Your task to perform on an android device: change the clock style Image 0: 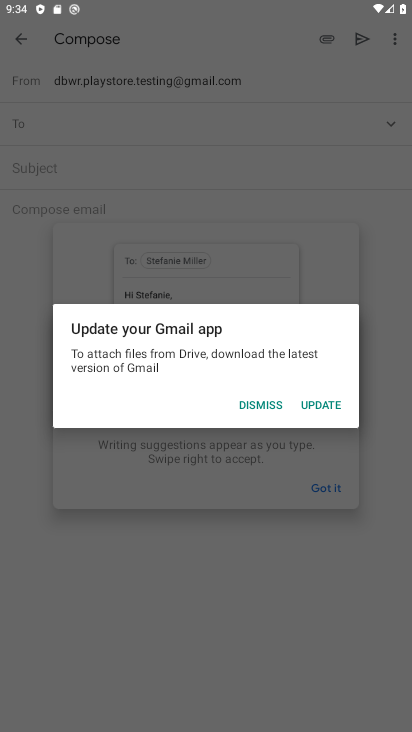
Step 0: press home button
Your task to perform on an android device: change the clock style Image 1: 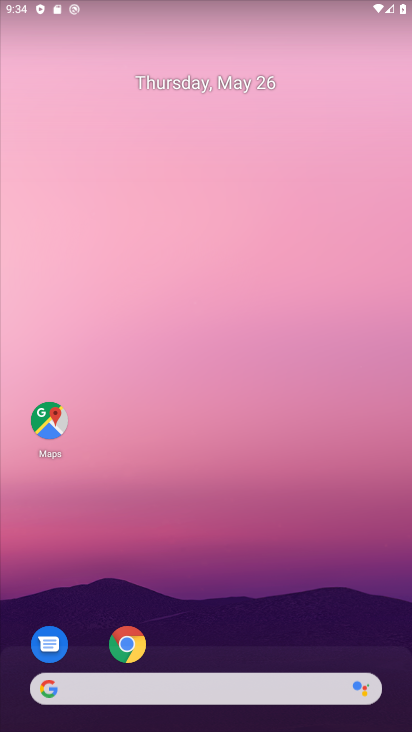
Step 1: drag from (204, 653) to (198, 182)
Your task to perform on an android device: change the clock style Image 2: 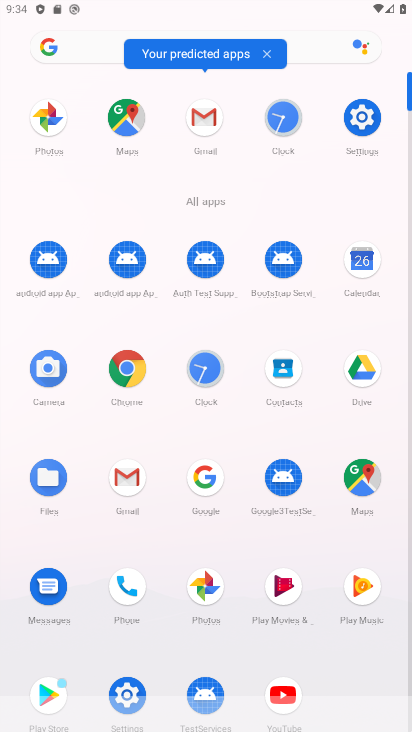
Step 2: click (278, 130)
Your task to perform on an android device: change the clock style Image 3: 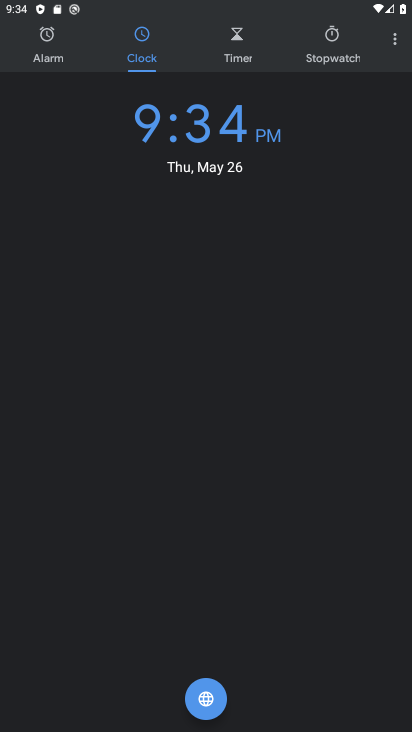
Step 3: click (398, 44)
Your task to perform on an android device: change the clock style Image 4: 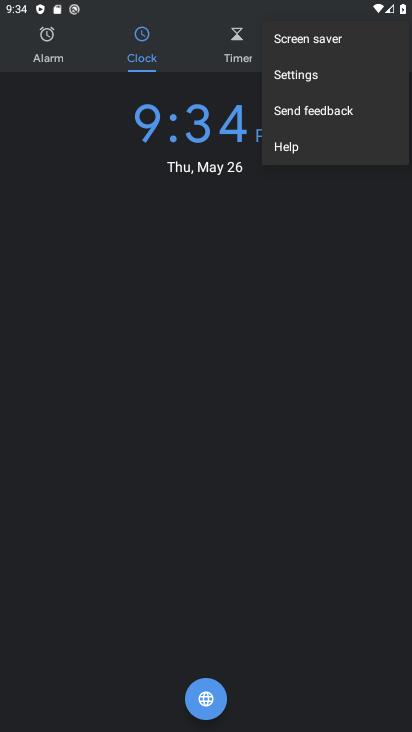
Step 4: click (344, 75)
Your task to perform on an android device: change the clock style Image 5: 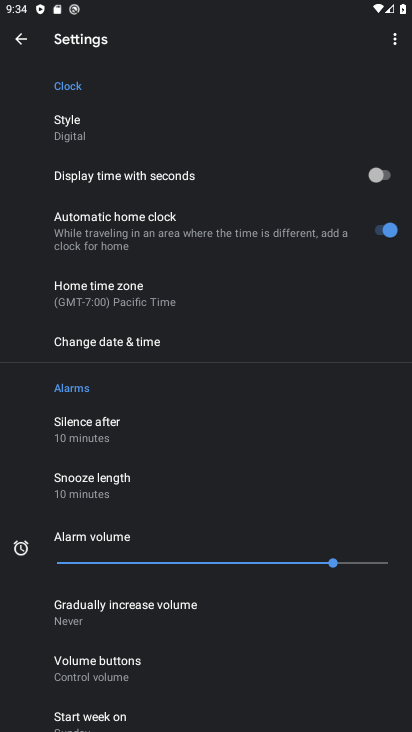
Step 5: click (130, 127)
Your task to perform on an android device: change the clock style Image 6: 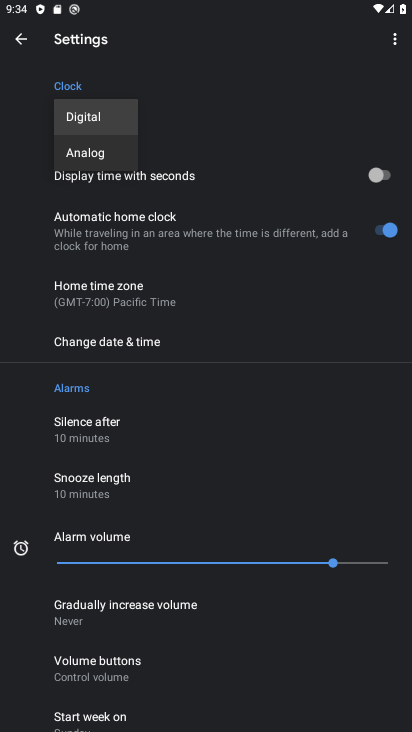
Step 6: click (125, 155)
Your task to perform on an android device: change the clock style Image 7: 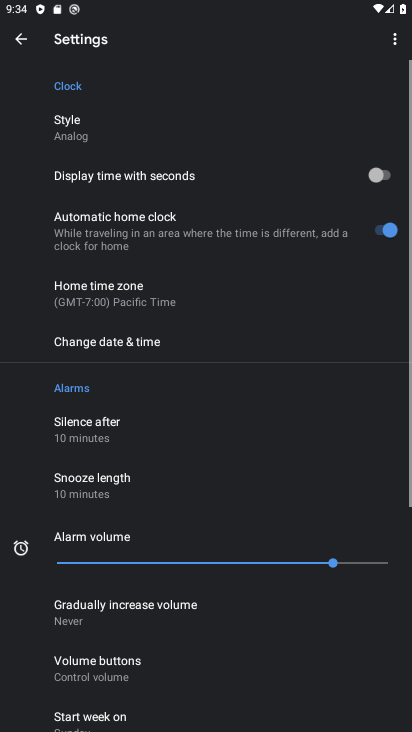
Step 7: task complete